Your task to perform on an android device: create a new album in the google photos Image 0: 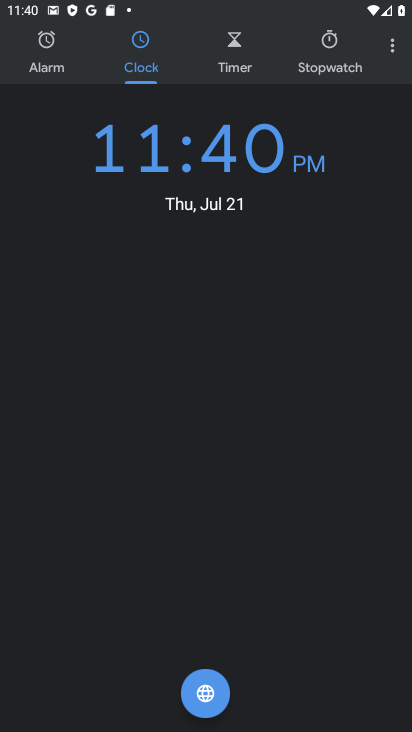
Step 0: press home button
Your task to perform on an android device: create a new album in the google photos Image 1: 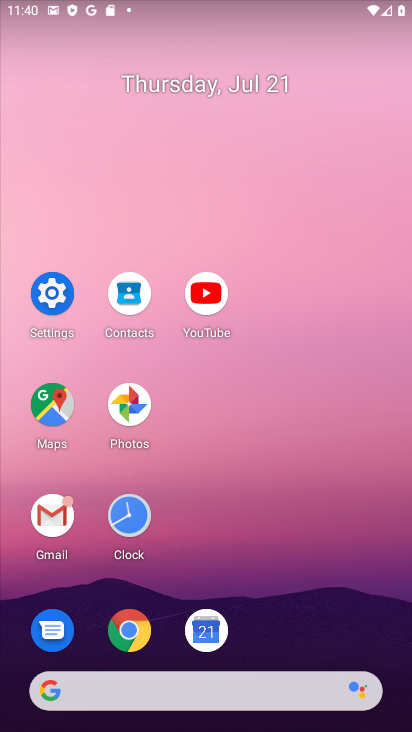
Step 1: click (127, 405)
Your task to perform on an android device: create a new album in the google photos Image 2: 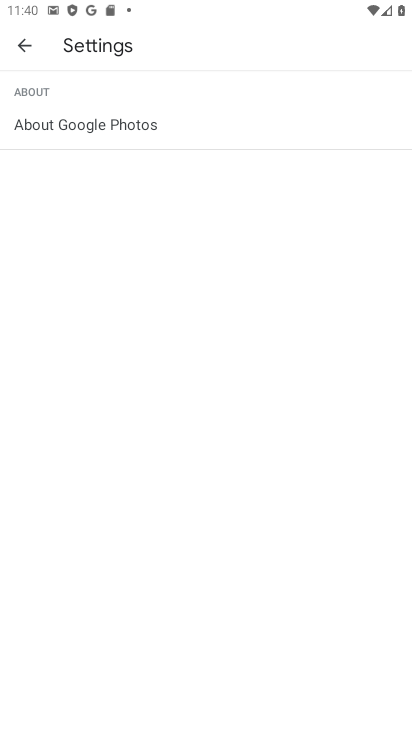
Step 2: click (23, 49)
Your task to perform on an android device: create a new album in the google photos Image 3: 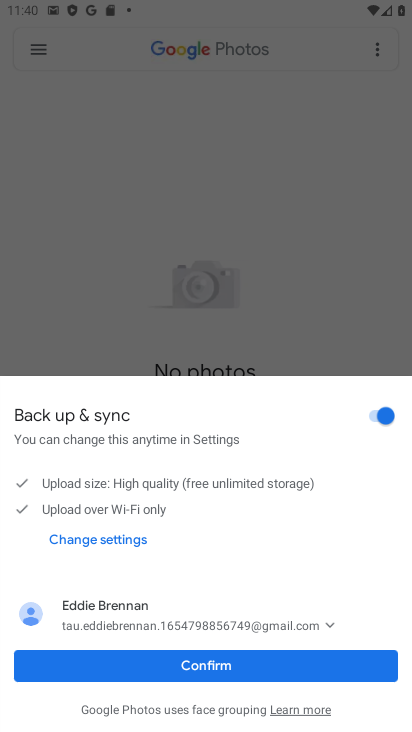
Step 3: click (198, 671)
Your task to perform on an android device: create a new album in the google photos Image 4: 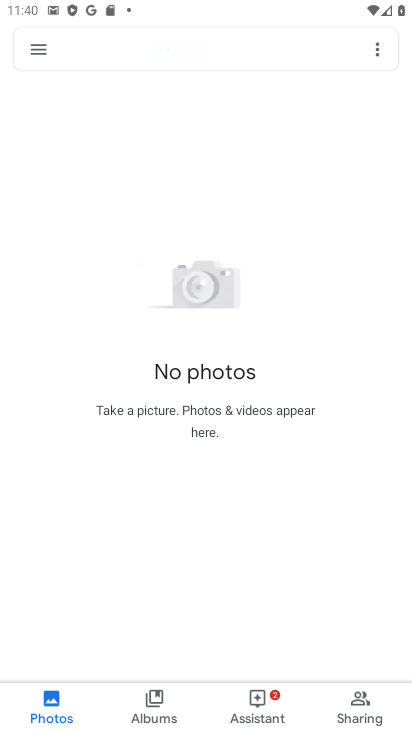
Step 4: click (146, 704)
Your task to perform on an android device: create a new album in the google photos Image 5: 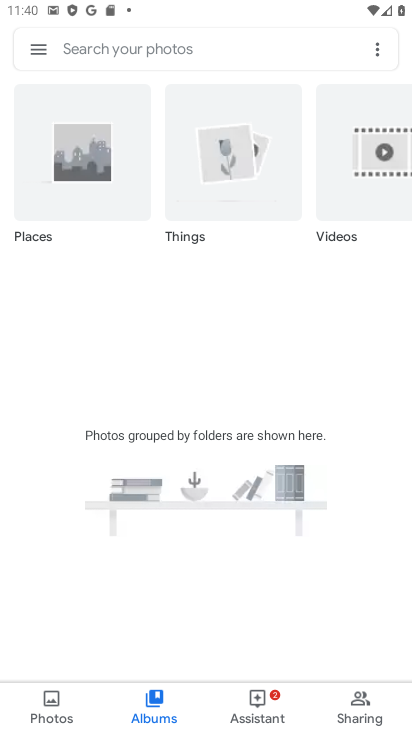
Step 5: click (377, 44)
Your task to perform on an android device: create a new album in the google photos Image 6: 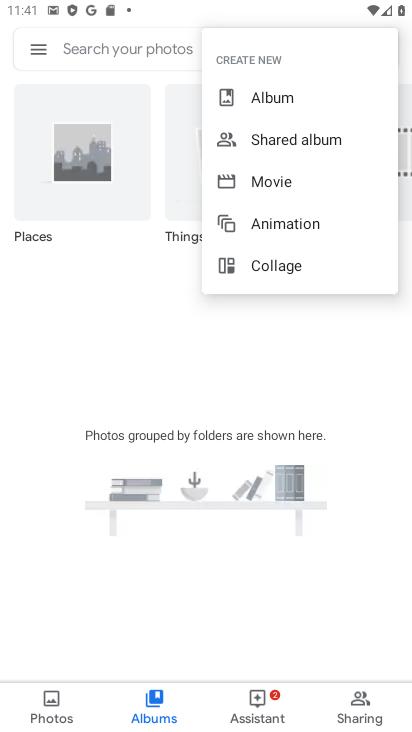
Step 6: click (271, 96)
Your task to perform on an android device: create a new album in the google photos Image 7: 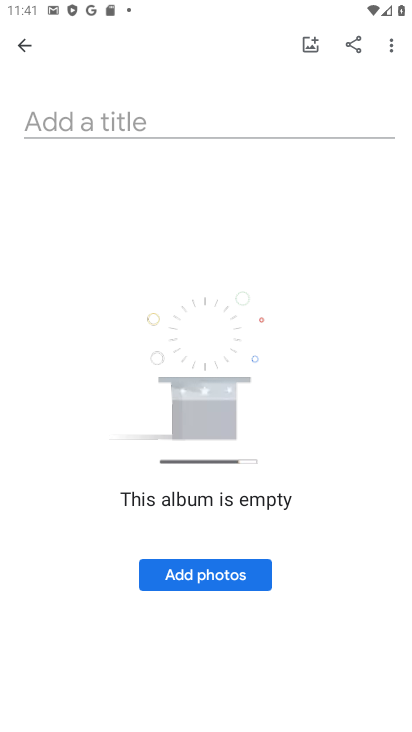
Step 7: click (108, 124)
Your task to perform on an android device: create a new album in the google photos Image 8: 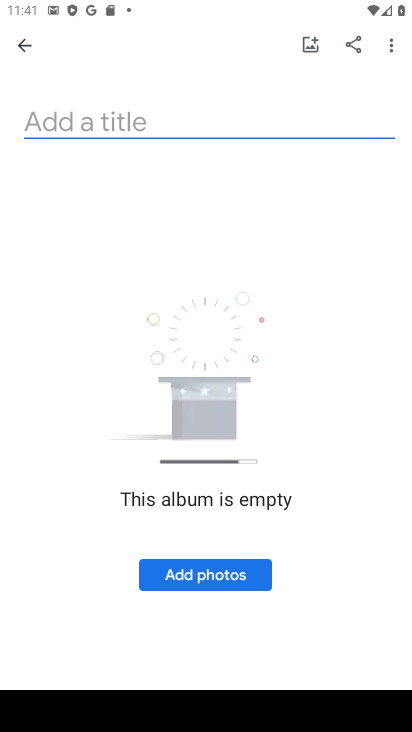
Step 8: type "ghgh"
Your task to perform on an android device: create a new album in the google photos Image 9: 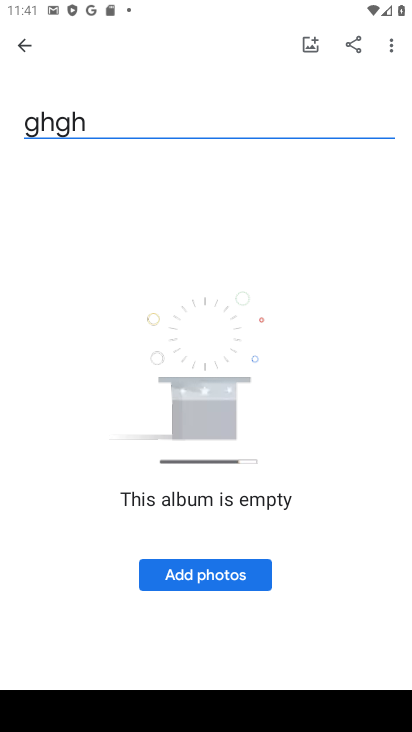
Step 9: click (306, 42)
Your task to perform on an android device: create a new album in the google photos Image 10: 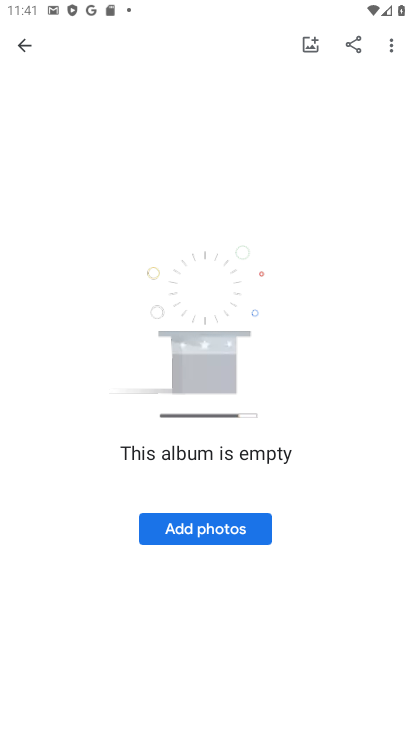
Step 10: task complete